Your task to perform on an android device: check google app version Image 0: 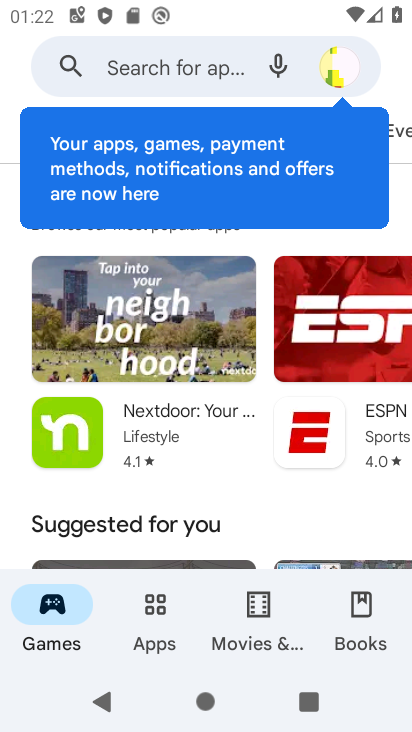
Step 0: press home button
Your task to perform on an android device: check google app version Image 1: 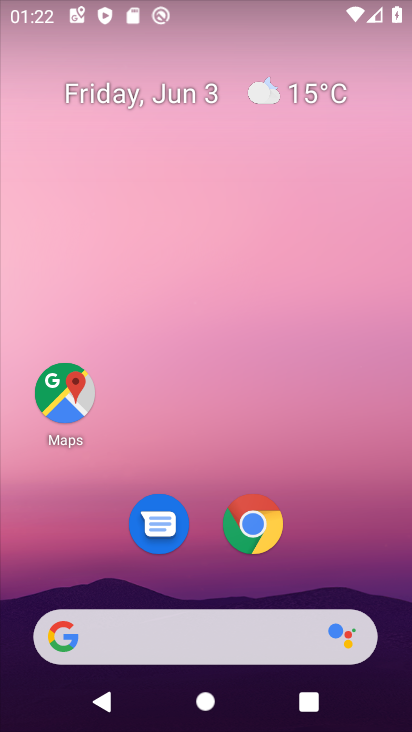
Step 1: click (238, 640)
Your task to perform on an android device: check google app version Image 2: 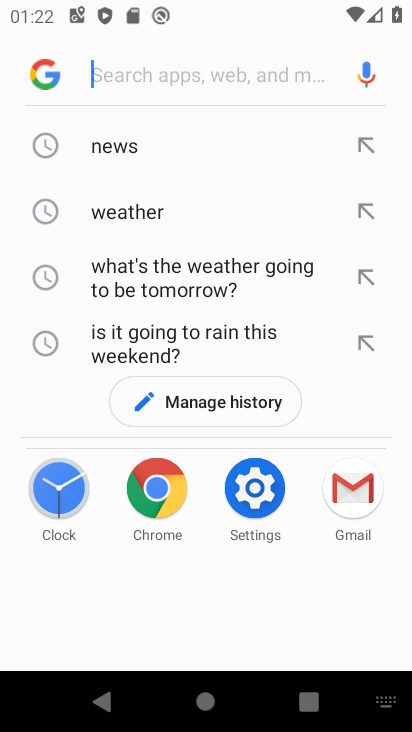
Step 2: click (41, 73)
Your task to perform on an android device: check google app version Image 3: 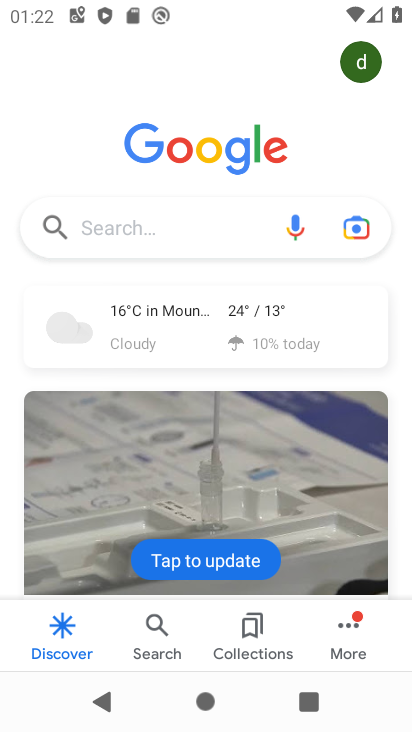
Step 3: click (337, 623)
Your task to perform on an android device: check google app version Image 4: 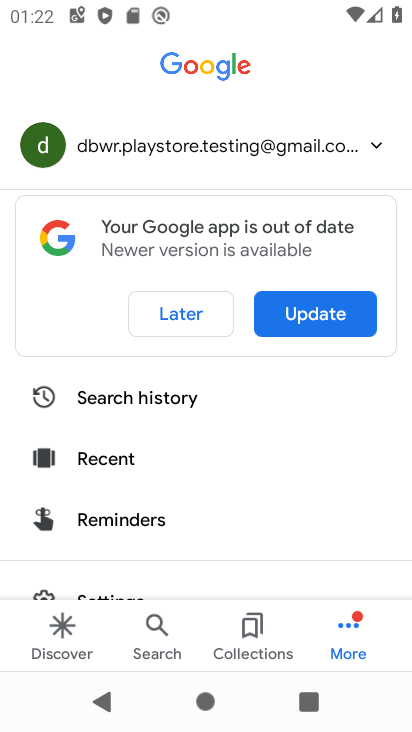
Step 4: drag from (244, 511) to (194, 197)
Your task to perform on an android device: check google app version Image 5: 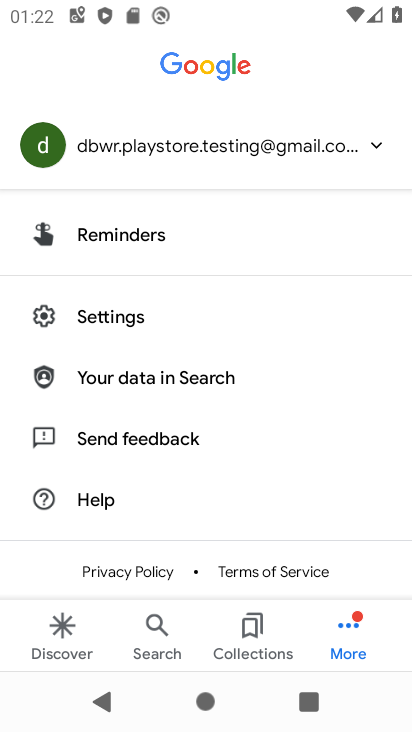
Step 5: click (166, 308)
Your task to perform on an android device: check google app version Image 6: 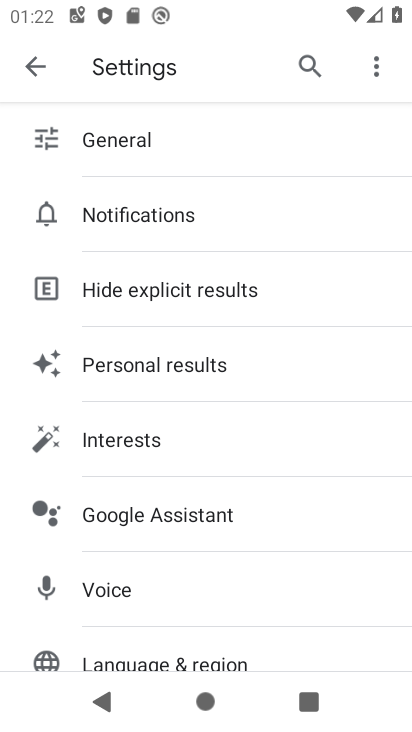
Step 6: drag from (244, 576) to (224, 223)
Your task to perform on an android device: check google app version Image 7: 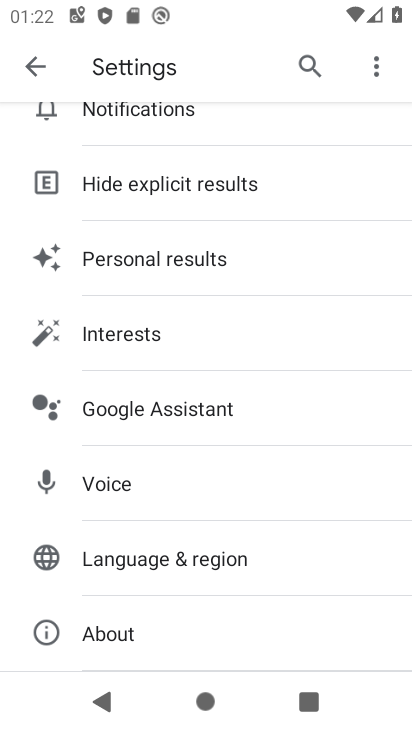
Step 7: click (221, 622)
Your task to perform on an android device: check google app version Image 8: 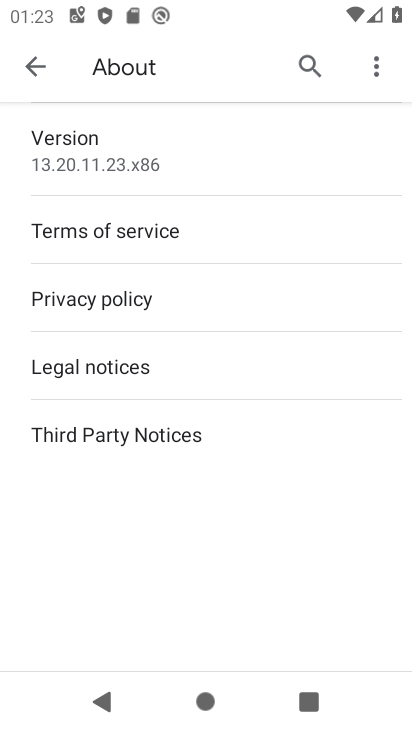
Step 8: task complete